Your task to perform on an android device: turn on javascript in the chrome app Image 0: 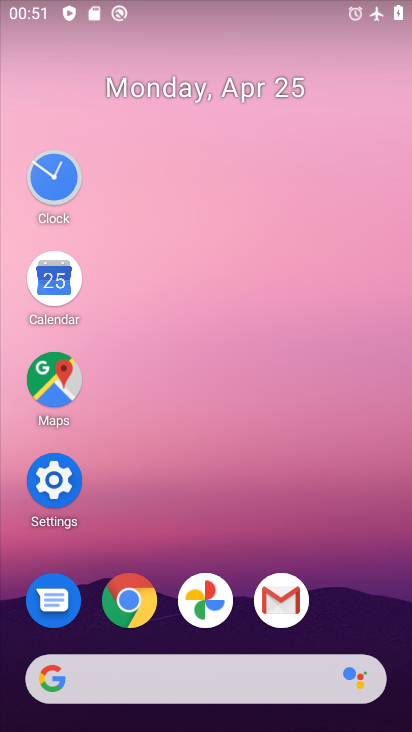
Step 0: click (129, 604)
Your task to perform on an android device: turn on javascript in the chrome app Image 1: 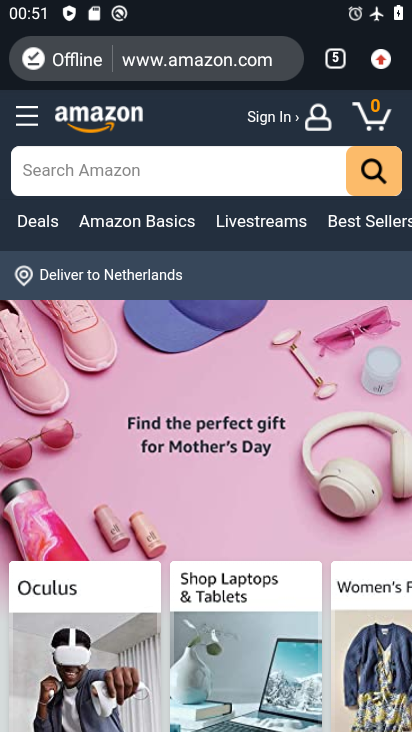
Step 1: click (382, 63)
Your task to perform on an android device: turn on javascript in the chrome app Image 2: 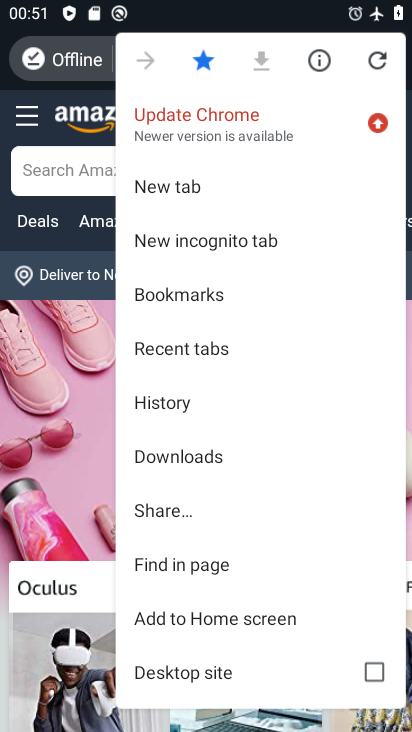
Step 2: drag from (262, 558) to (203, 237)
Your task to perform on an android device: turn on javascript in the chrome app Image 3: 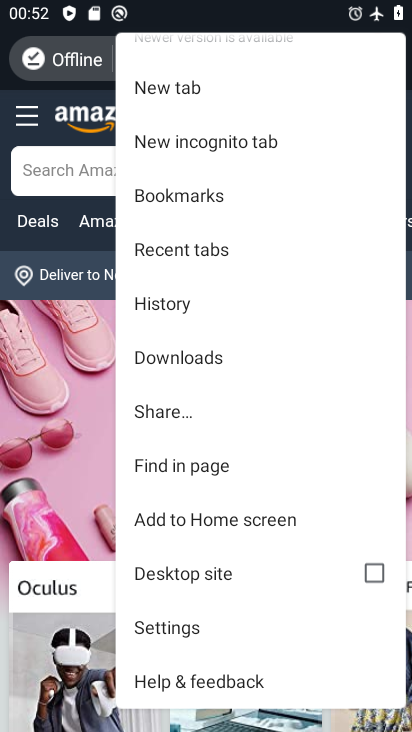
Step 3: click (185, 626)
Your task to perform on an android device: turn on javascript in the chrome app Image 4: 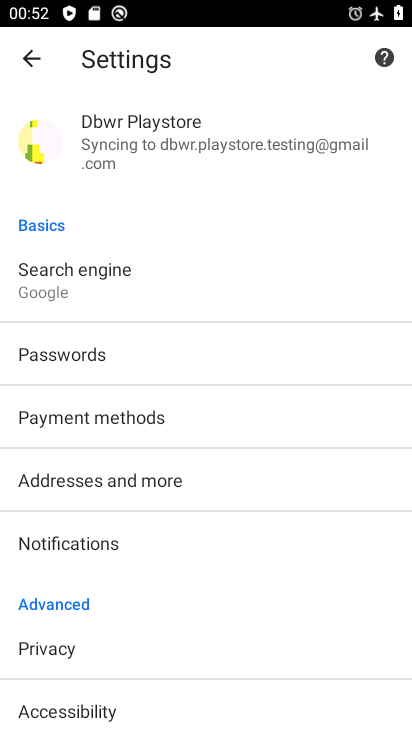
Step 4: drag from (110, 650) to (31, 303)
Your task to perform on an android device: turn on javascript in the chrome app Image 5: 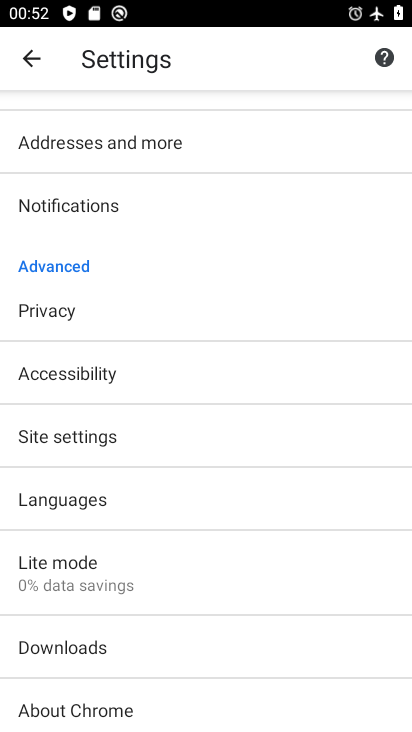
Step 5: click (78, 430)
Your task to perform on an android device: turn on javascript in the chrome app Image 6: 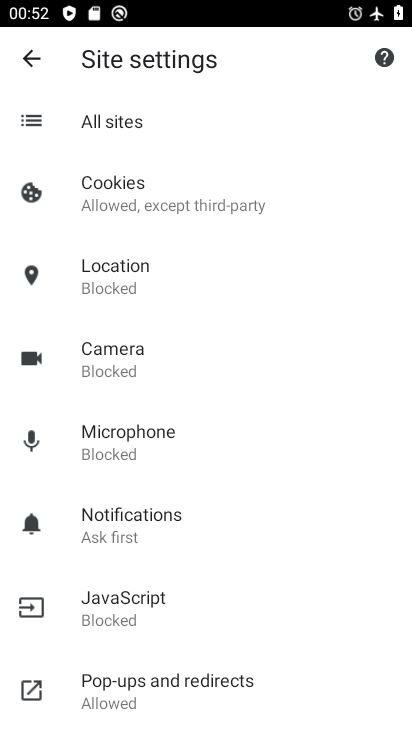
Step 6: click (137, 593)
Your task to perform on an android device: turn on javascript in the chrome app Image 7: 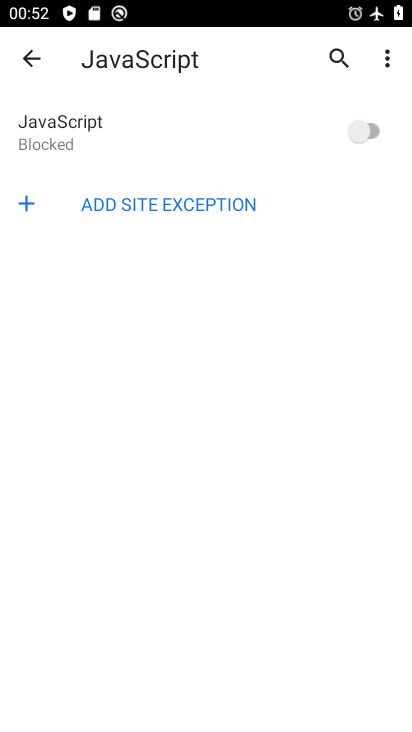
Step 7: click (355, 133)
Your task to perform on an android device: turn on javascript in the chrome app Image 8: 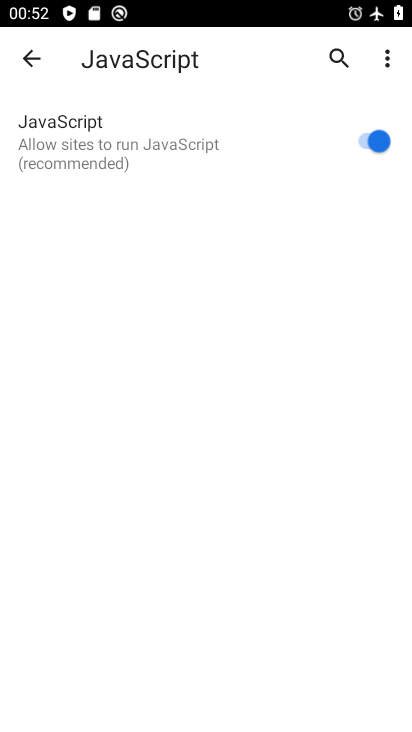
Step 8: task complete